Your task to perform on an android device: turn on priority inbox in the gmail app Image 0: 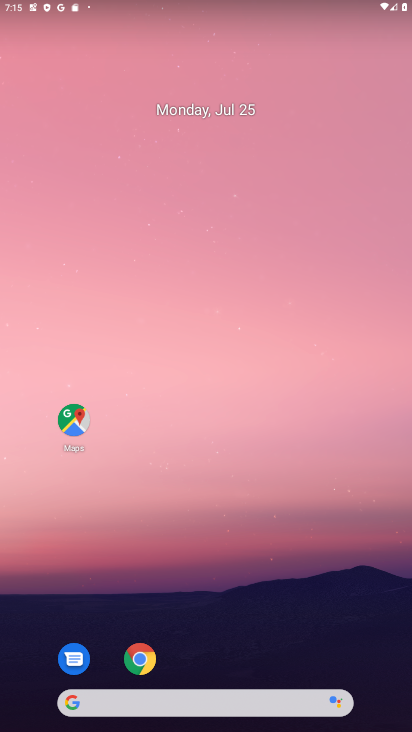
Step 0: drag from (179, 638) to (189, 122)
Your task to perform on an android device: turn on priority inbox in the gmail app Image 1: 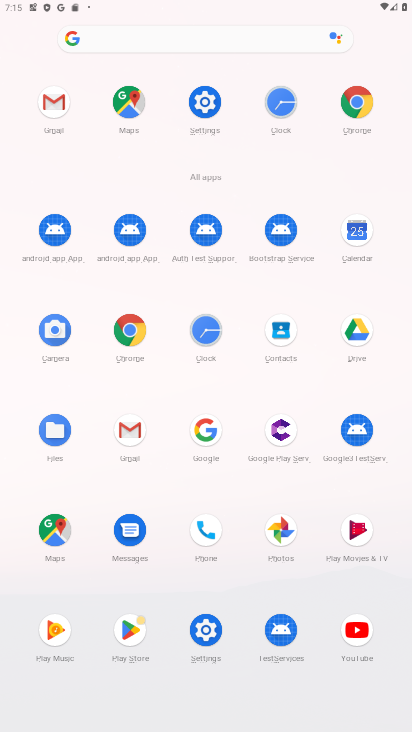
Step 1: click (124, 432)
Your task to perform on an android device: turn on priority inbox in the gmail app Image 2: 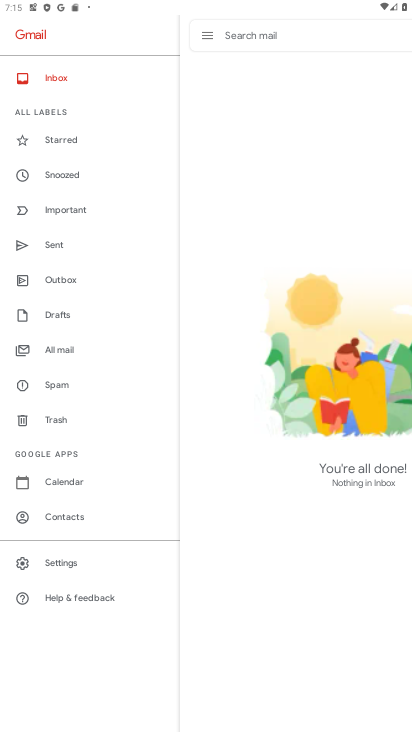
Step 2: click (42, 559)
Your task to perform on an android device: turn on priority inbox in the gmail app Image 3: 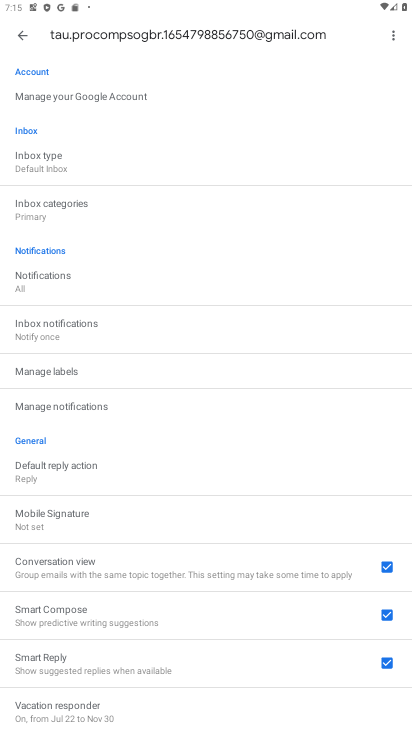
Step 3: click (52, 166)
Your task to perform on an android device: turn on priority inbox in the gmail app Image 4: 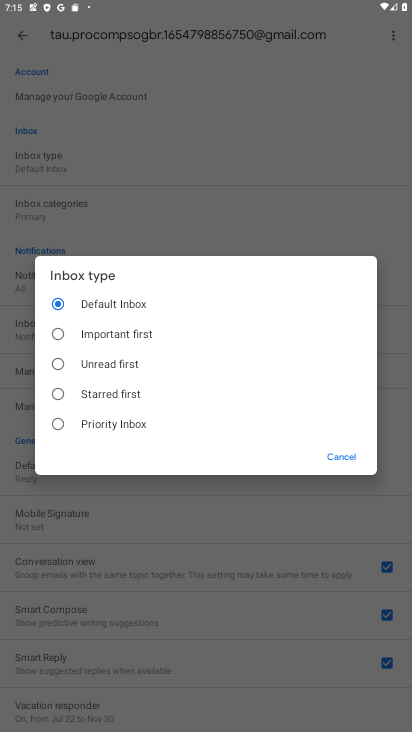
Step 4: click (57, 429)
Your task to perform on an android device: turn on priority inbox in the gmail app Image 5: 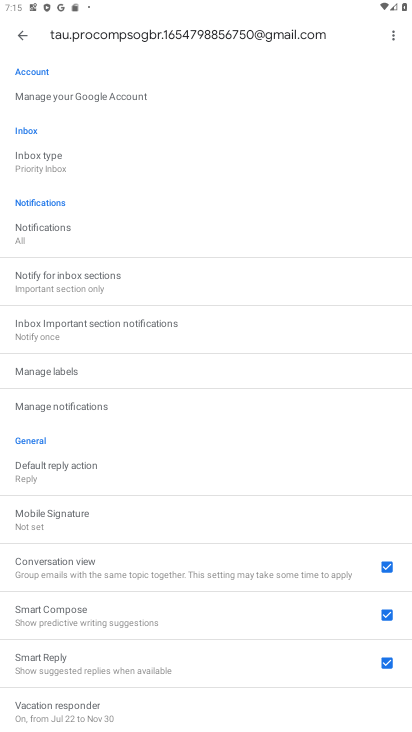
Step 5: task complete